Your task to perform on an android device: Open CNN.com Image 0: 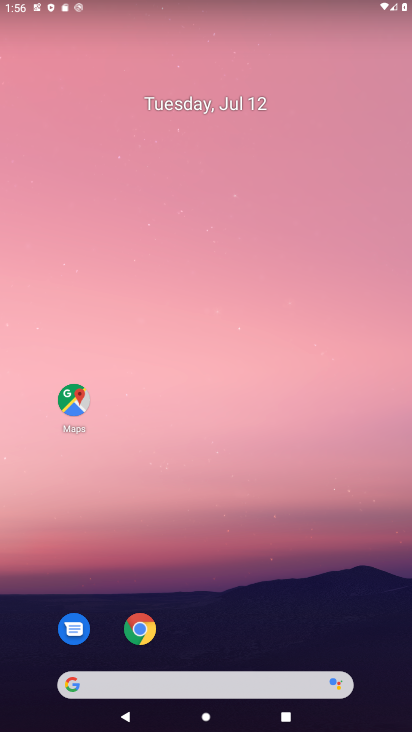
Step 0: click (145, 627)
Your task to perform on an android device: Open CNN.com Image 1: 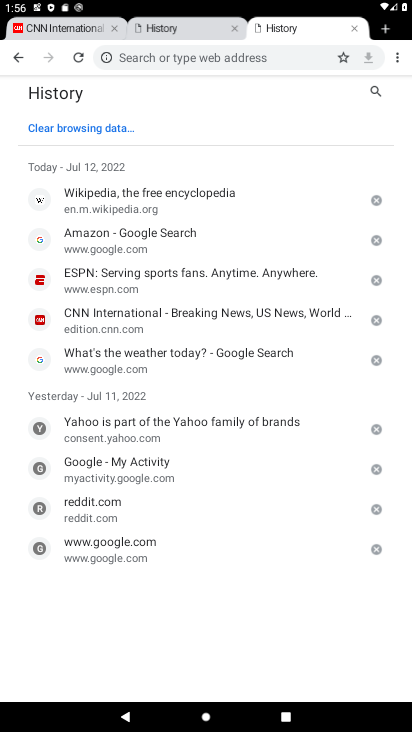
Step 1: click (261, 52)
Your task to perform on an android device: Open CNN.com Image 2: 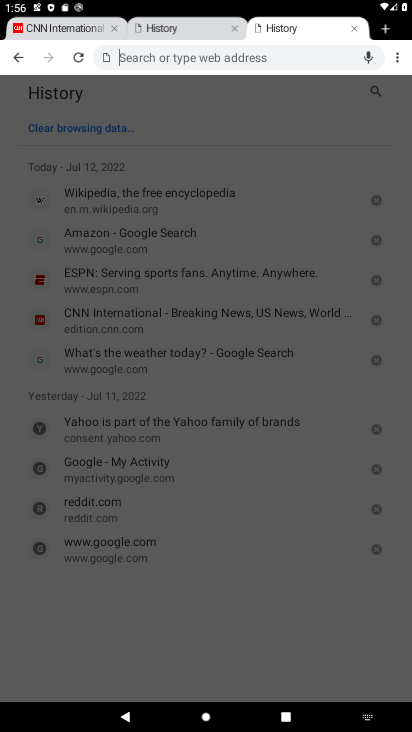
Step 2: type "cnn.com"
Your task to perform on an android device: Open CNN.com Image 3: 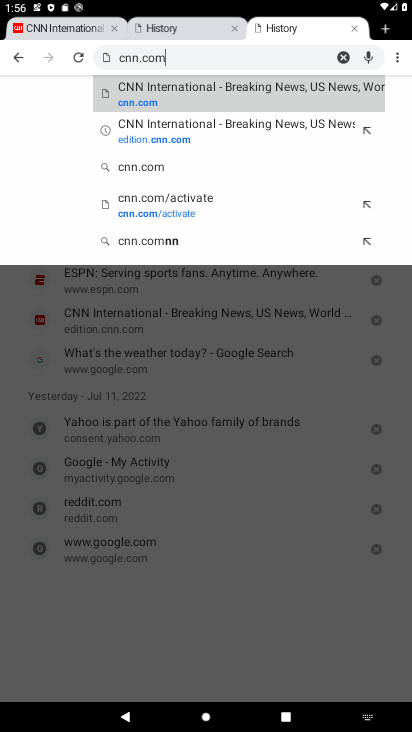
Step 3: click (295, 83)
Your task to perform on an android device: Open CNN.com Image 4: 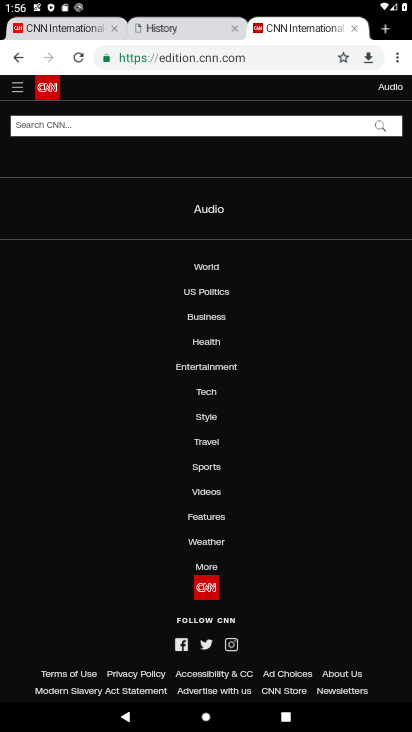
Step 4: task complete